Your task to perform on an android device: Search for pizza restaurants on Maps Image 0: 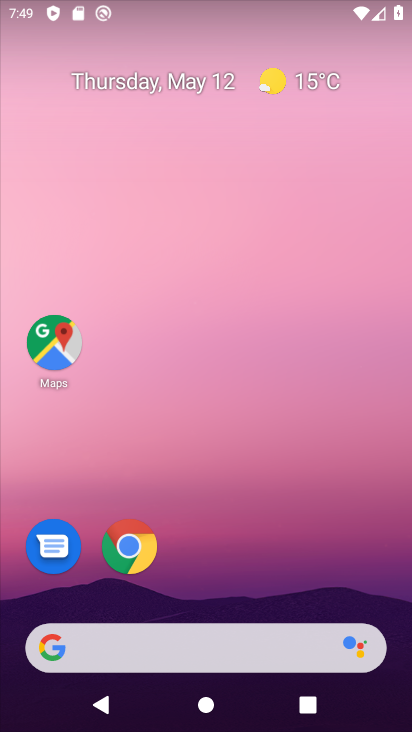
Step 0: press home button
Your task to perform on an android device: Search for pizza restaurants on Maps Image 1: 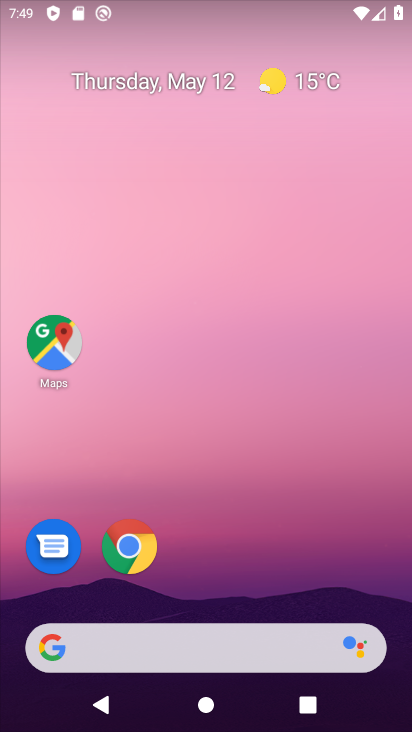
Step 1: click (55, 353)
Your task to perform on an android device: Search for pizza restaurants on Maps Image 2: 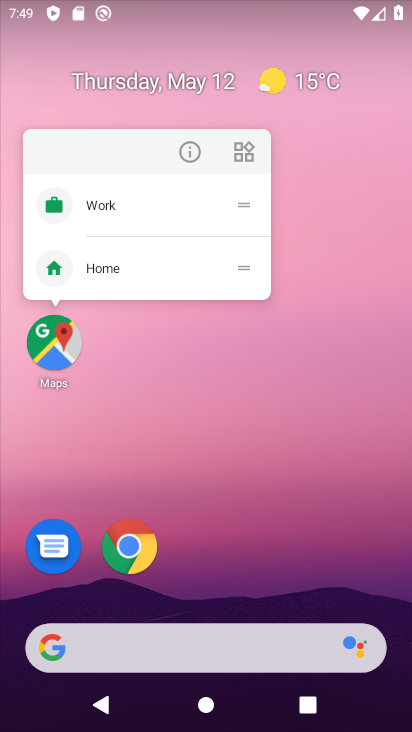
Step 2: click (55, 353)
Your task to perform on an android device: Search for pizza restaurants on Maps Image 3: 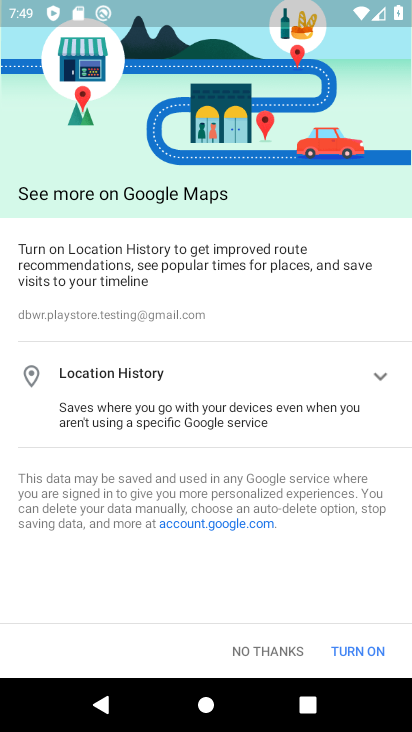
Step 3: click (259, 647)
Your task to perform on an android device: Search for pizza restaurants on Maps Image 4: 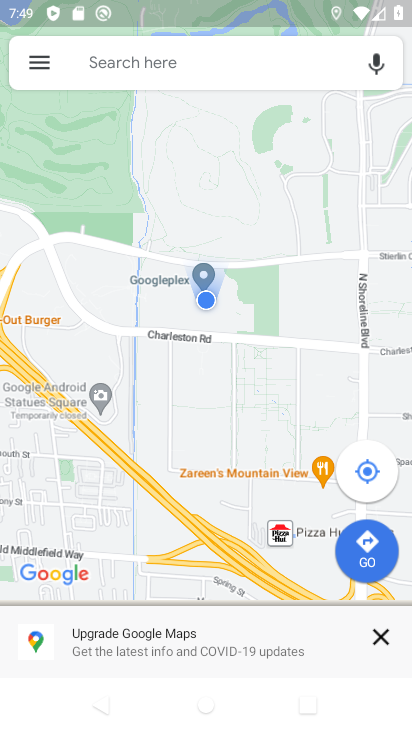
Step 4: click (190, 55)
Your task to perform on an android device: Search for pizza restaurants on Maps Image 5: 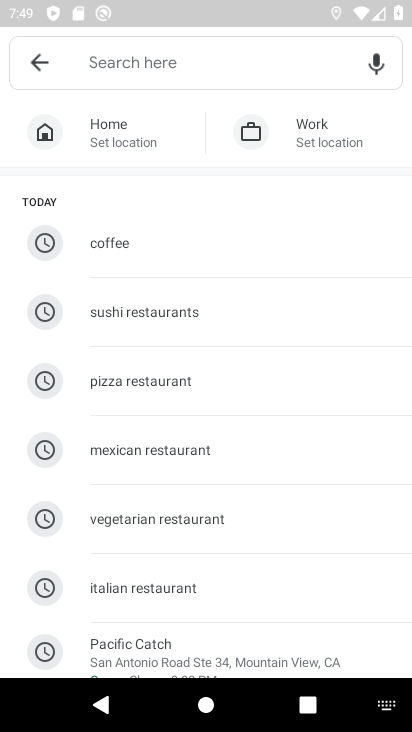
Step 5: click (148, 379)
Your task to perform on an android device: Search for pizza restaurants on Maps Image 6: 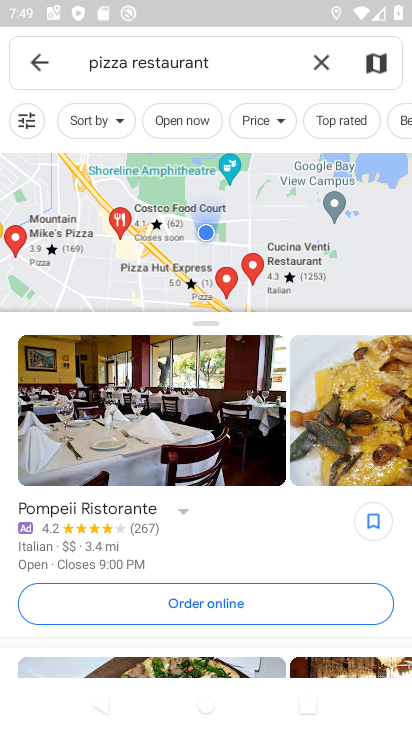
Step 6: task complete